Your task to perform on an android device: turn vacation reply on in the gmail app Image 0: 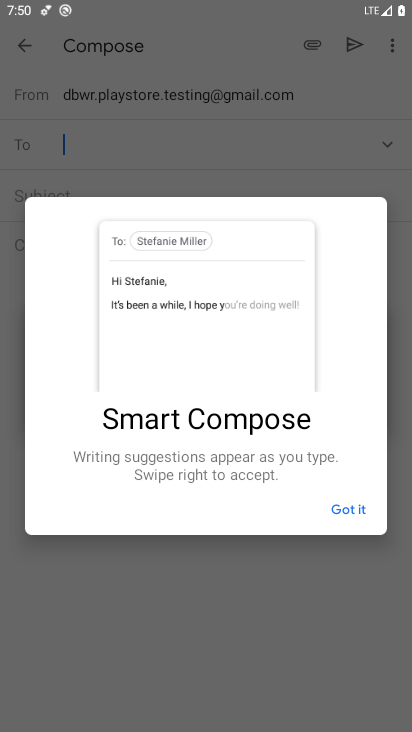
Step 0: press home button
Your task to perform on an android device: turn vacation reply on in the gmail app Image 1: 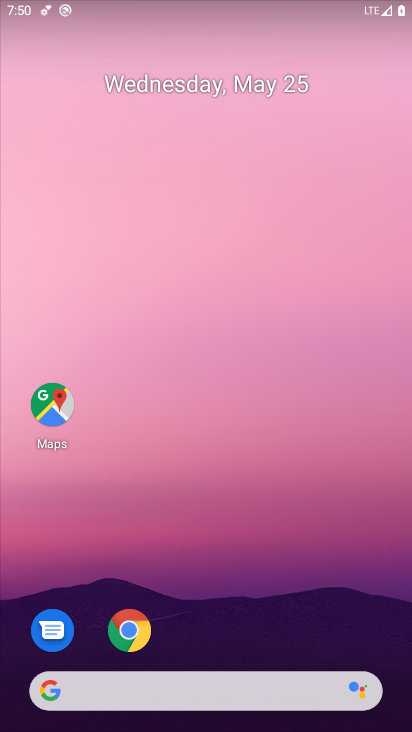
Step 1: drag from (208, 677) to (252, 177)
Your task to perform on an android device: turn vacation reply on in the gmail app Image 2: 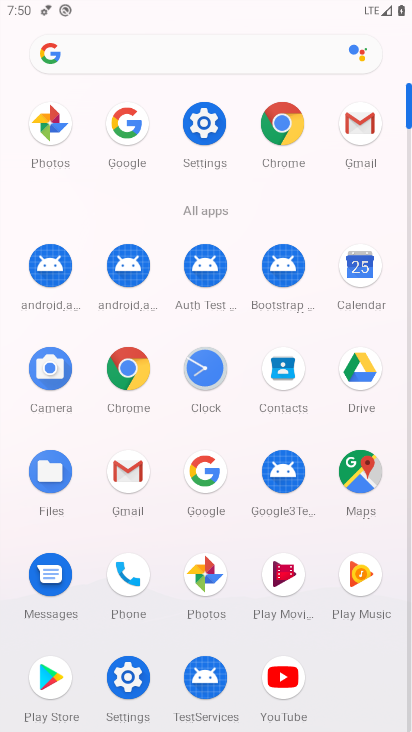
Step 2: click (348, 125)
Your task to perform on an android device: turn vacation reply on in the gmail app Image 3: 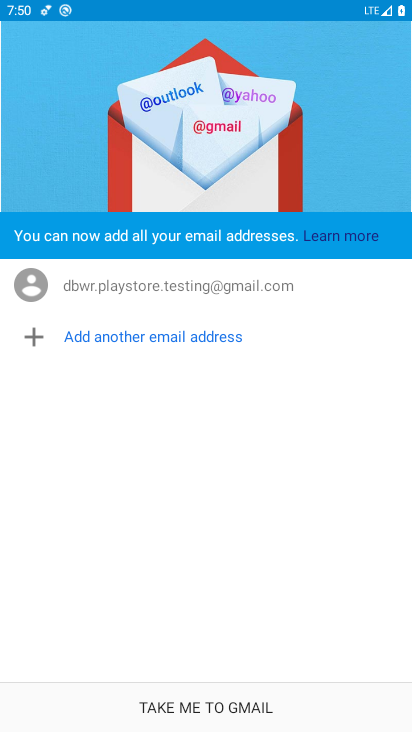
Step 3: click (167, 714)
Your task to perform on an android device: turn vacation reply on in the gmail app Image 4: 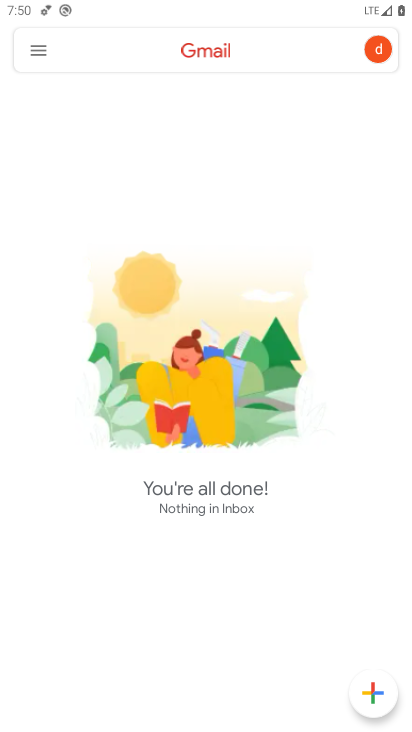
Step 4: click (33, 53)
Your task to perform on an android device: turn vacation reply on in the gmail app Image 5: 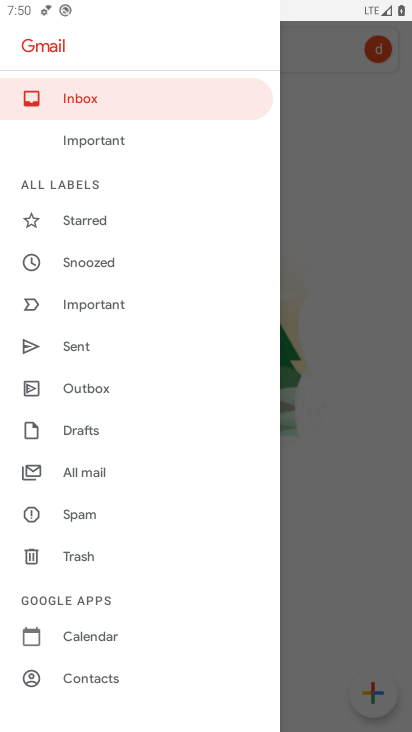
Step 5: drag from (96, 684) to (87, 246)
Your task to perform on an android device: turn vacation reply on in the gmail app Image 6: 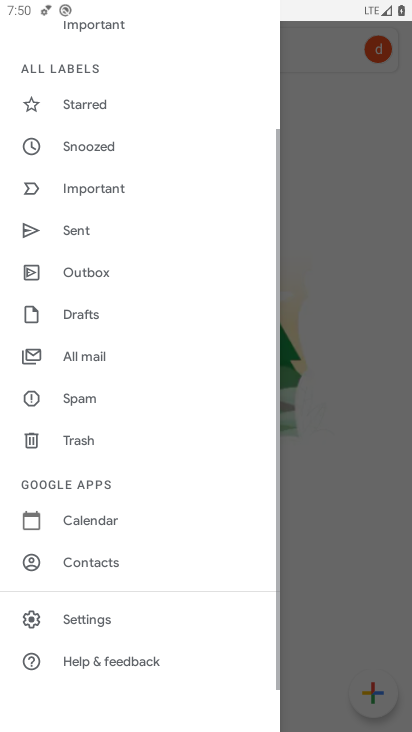
Step 6: click (73, 619)
Your task to perform on an android device: turn vacation reply on in the gmail app Image 7: 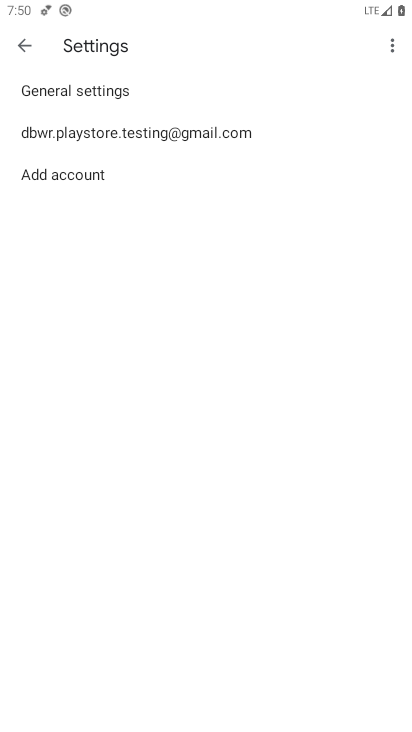
Step 7: click (104, 138)
Your task to perform on an android device: turn vacation reply on in the gmail app Image 8: 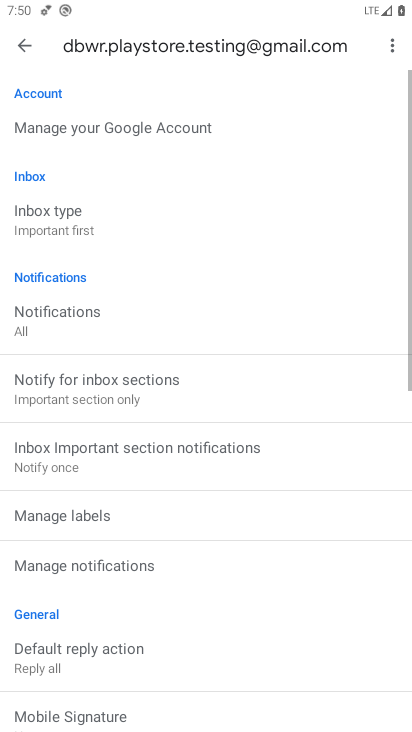
Step 8: drag from (270, 686) to (288, 213)
Your task to perform on an android device: turn vacation reply on in the gmail app Image 9: 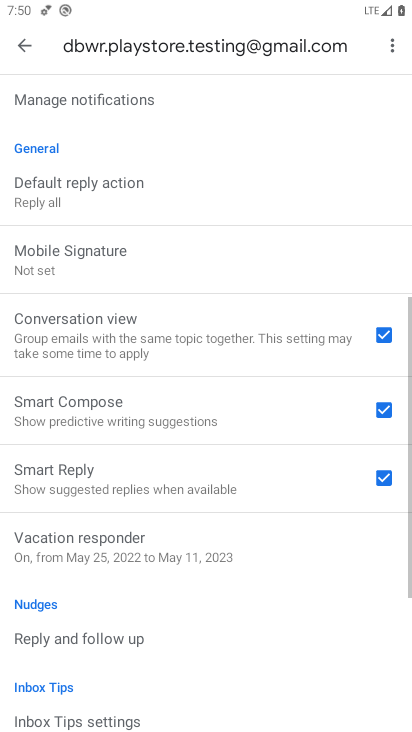
Step 9: click (129, 555)
Your task to perform on an android device: turn vacation reply on in the gmail app Image 10: 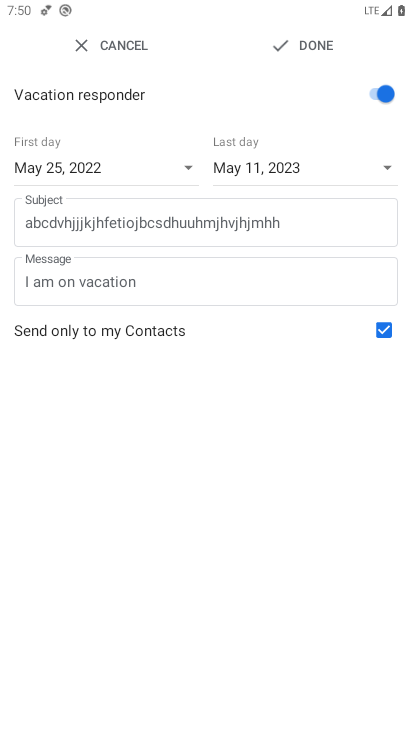
Step 10: click (309, 46)
Your task to perform on an android device: turn vacation reply on in the gmail app Image 11: 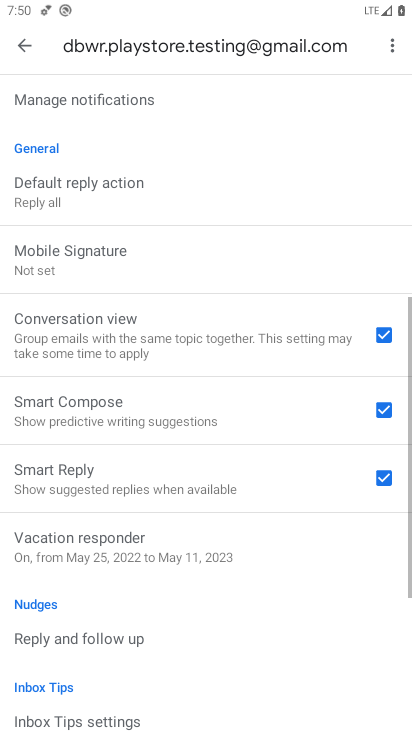
Step 11: task complete